Your task to perform on an android device: Go to location settings Image 0: 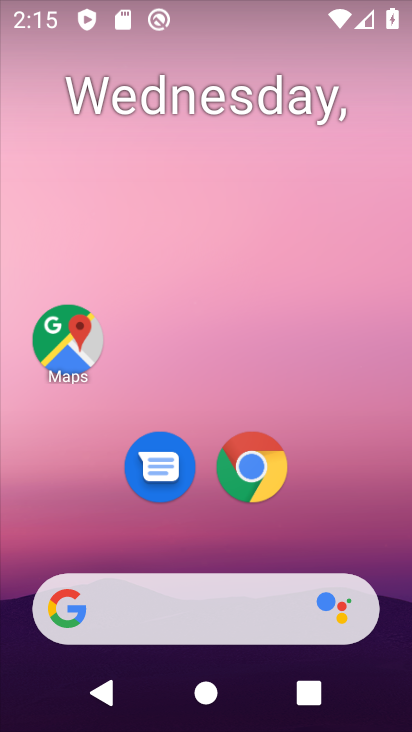
Step 0: press home button
Your task to perform on an android device: Go to location settings Image 1: 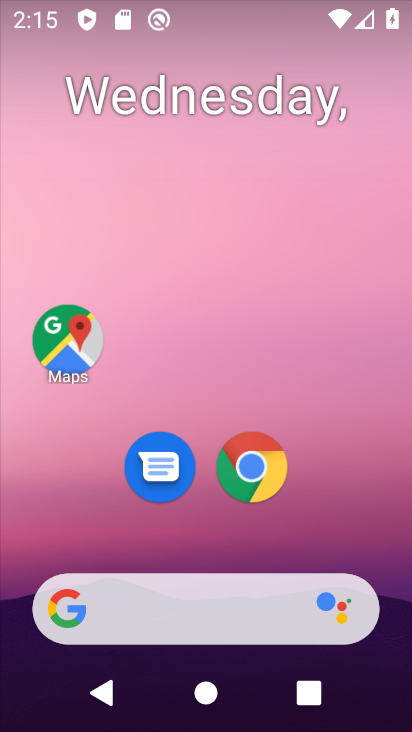
Step 1: drag from (196, 583) to (303, 102)
Your task to perform on an android device: Go to location settings Image 2: 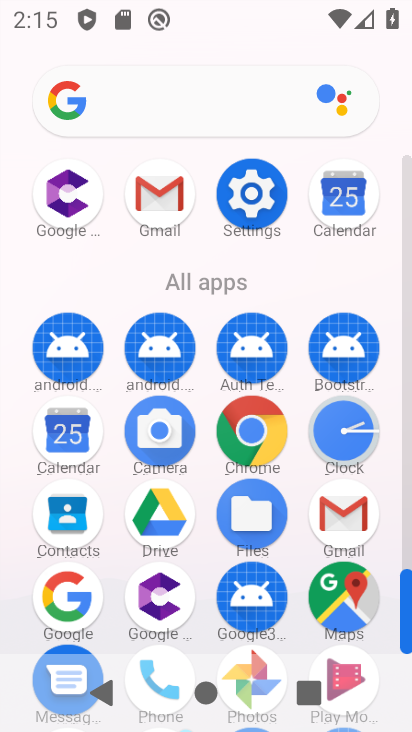
Step 2: click (247, 206)
Your task to perform on an android device: Go to location settings Image 3: 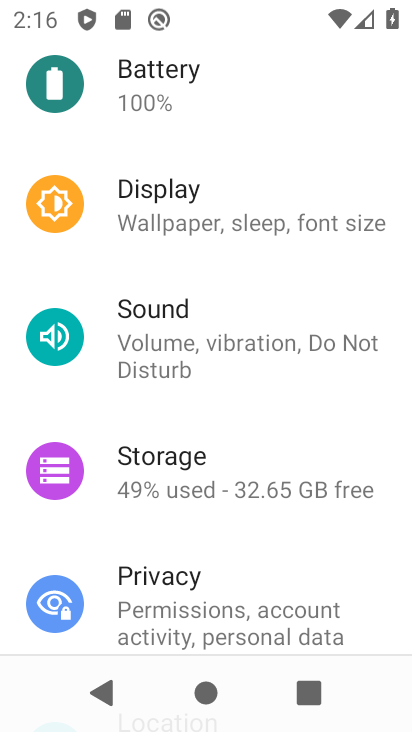
Step 3: drag from (238, 564) to (321, 35)
Your task to perform on an android device: Go to location settings Image 4: 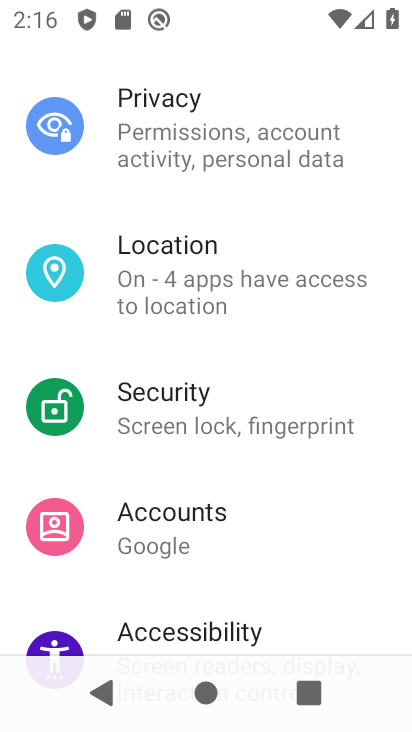
Step 4: click (179, 247)
Your task to perform on an android device: Go to location settings Image 5: 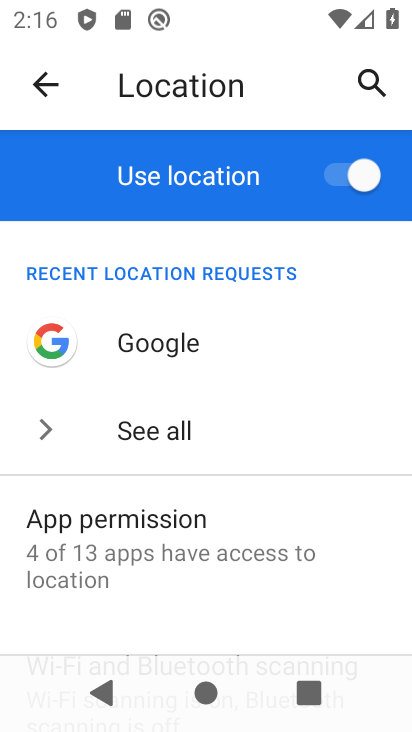
Step 5: task complete